Your task to perform on an android device: Show me some nice wallpapers for my laptop Image 0: 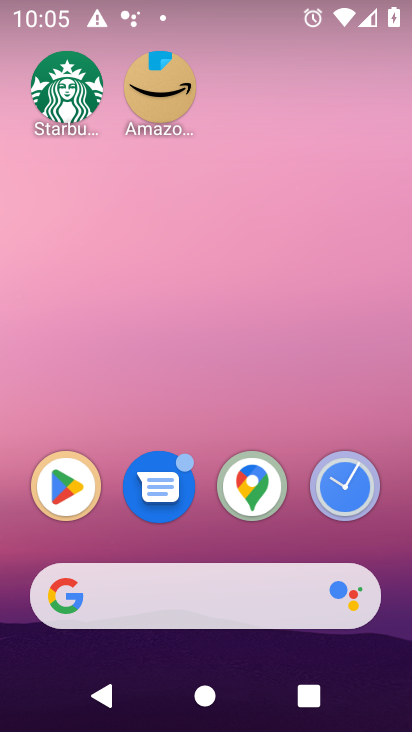
Step 0: drag from (248, 563) to (255, 398)
Your task to perform on an android device: Show me some nice wallpapers for my laptop Image 1: 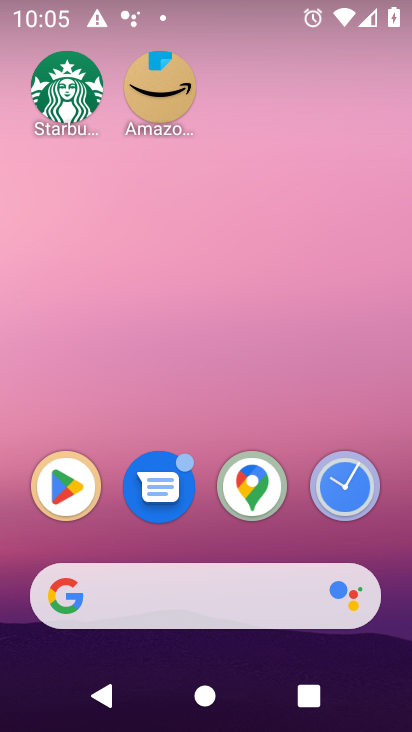
Step 1: drag from (267, 592) to (296, 77)
Your task to perform on an android device: Show me some nice wallpapers for my laptop Image 2: 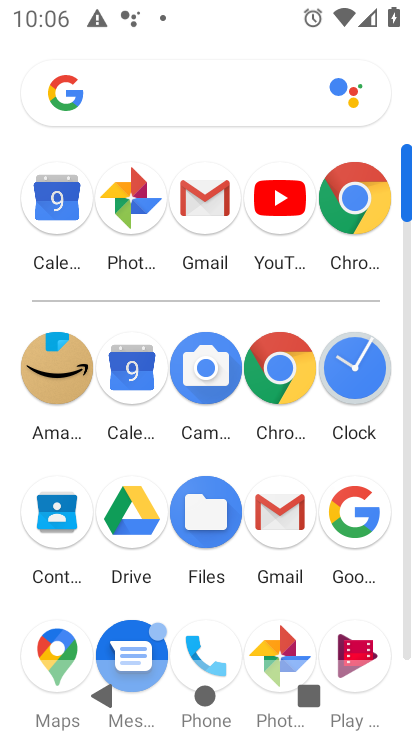
Step 2: click (362, 543)
Your task to perform on an android device: Show me some nice wallpapers for my laptop Image 3: 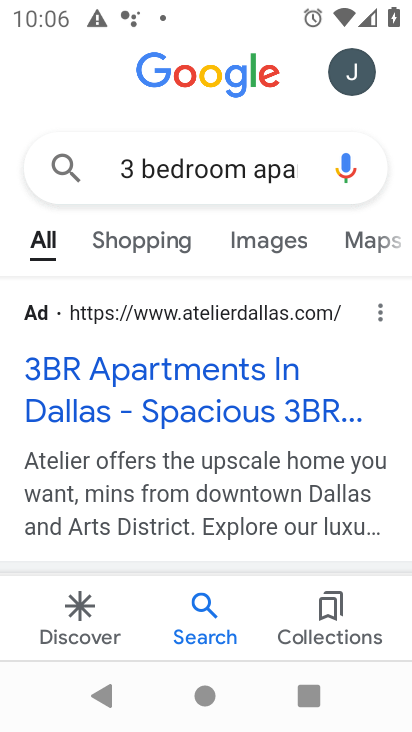
Step 3: click (316, 174)
Your task to perform on an android device: Show me some nice wallpapers for my laptop Image 4: 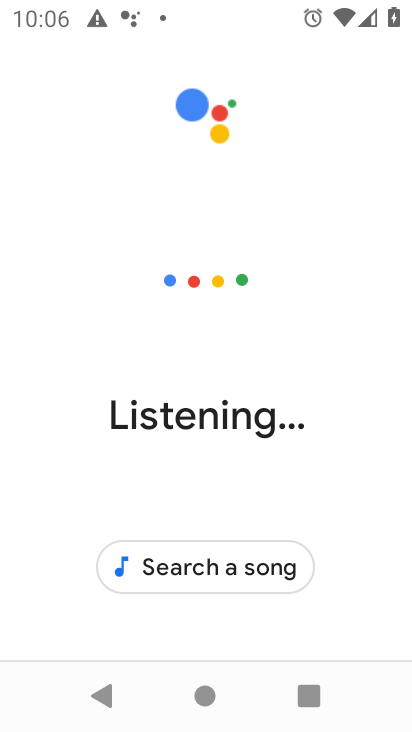
Step 4: press back button
Your task to perform on an android device: Show me some nice wallpapers for my laptop Image 5: 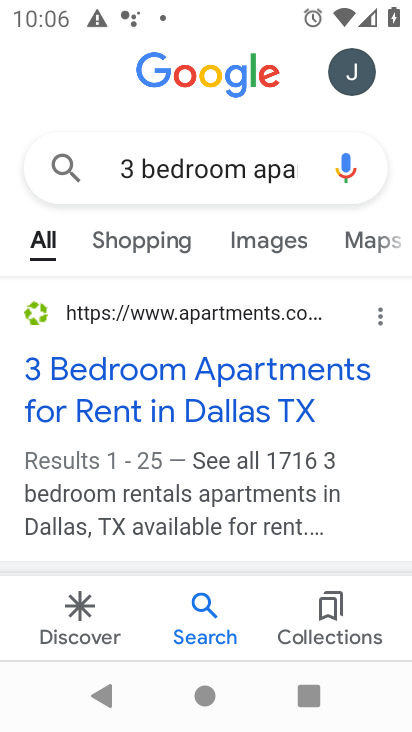
Step 5: click (203, 160)
Your task to perform on an android device: Show me some nice wallpapers for my laptop Image 6: 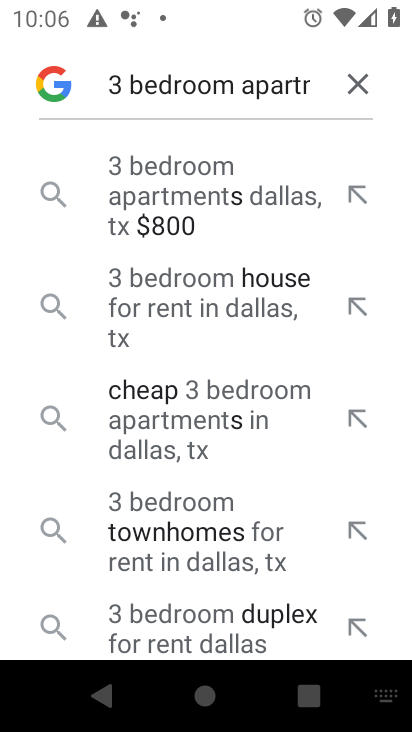
Step 6: click (362, 83)
Your task to perform on an android device: Show me some nice wallpapers for my laptop Image 7: 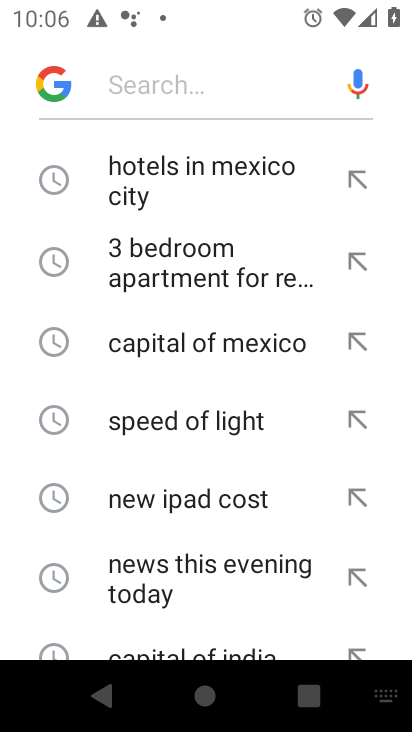
Step 7: type "wallpapers for my laptop"
Your task to perform on an android device: Show me some nice wallpapers for my laptop Image 8: 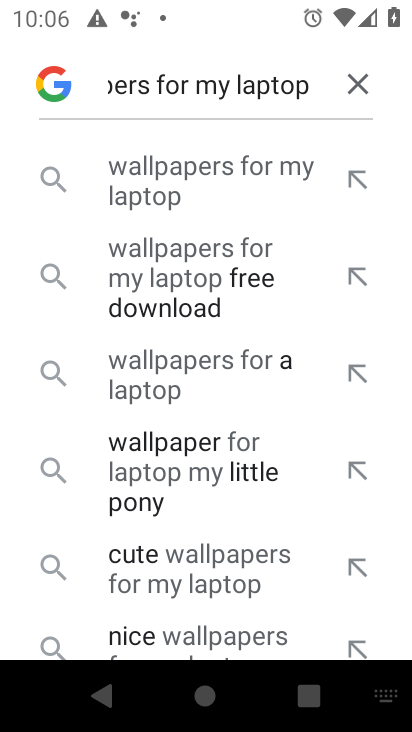
Step 8: click (254, 185)
Your task to perform on an android device: Show me some nice wallpapers for my laptop Image 9: 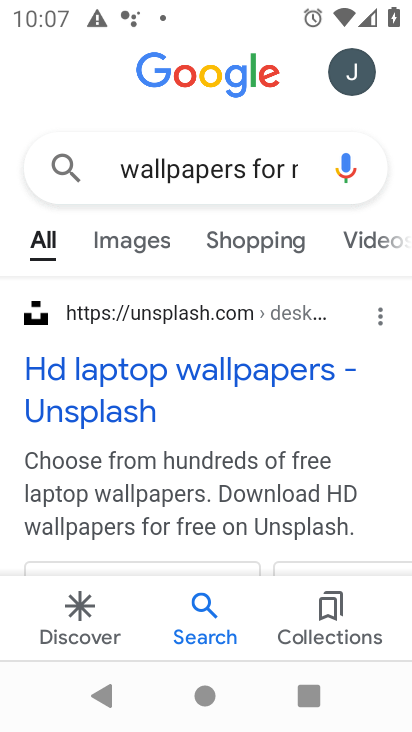
Step 9: click (148, 385)
Your task to perform on an android device: Show me some nice wallpapers for my laptop Image 10: 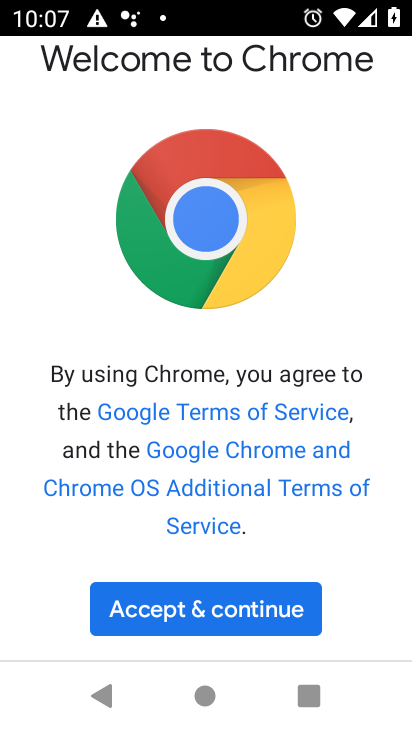
Step 10: click (192, 624)
Your task to perform on an android device: Show me some nice wallpapers for my laptop Image 11: 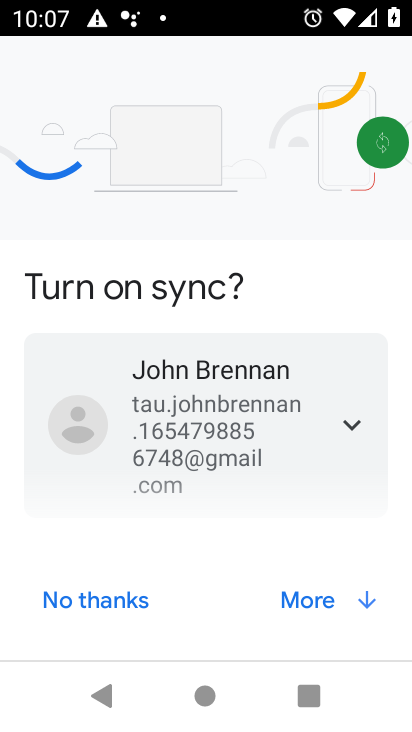
Step 11: click (341, 600)
Your task to perform on an android device: Show me some nice wallpapers for my laptop Image 12: 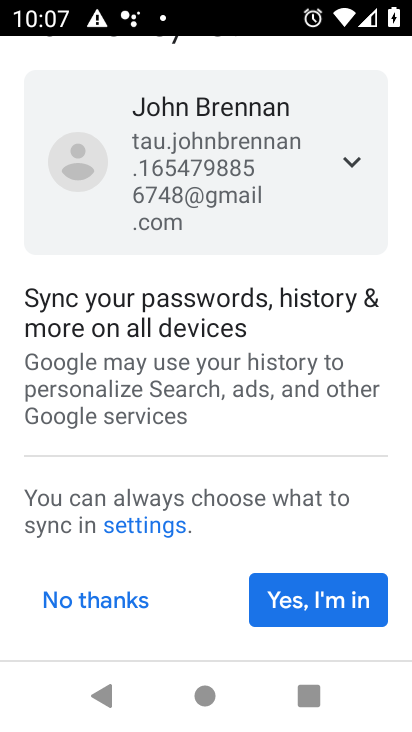
Step 12: click (341, 600)
Your task to perform on an android device: Show me some nice wallpapers for my laptop Image 13: 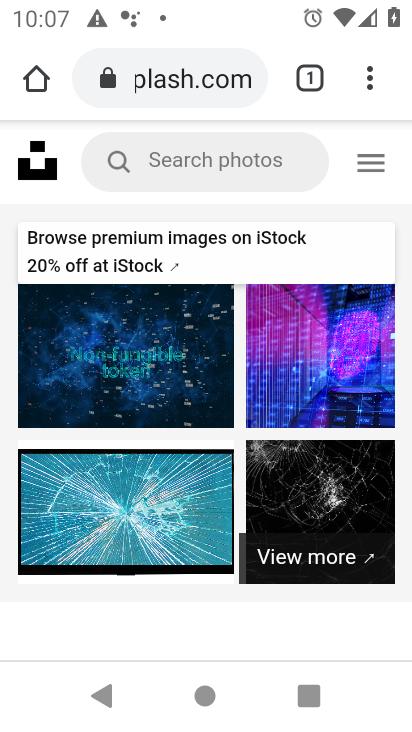
Step 13: task complete